Your task to perform on an android device: toggle javascript in the chrome app Image 0: 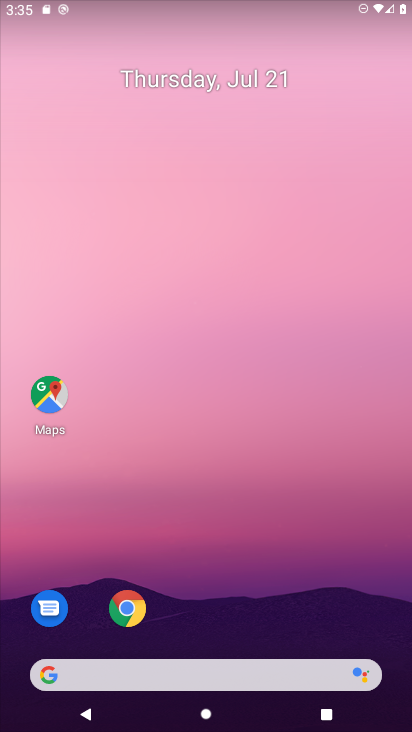
Step 0: click (131, 620)
Your task to perform on an android device: toggle javascript in the chrome app Image 1: 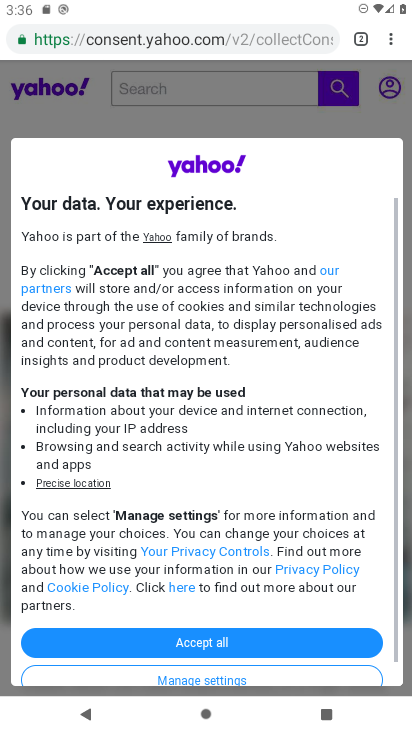
Step 1: click (384, 36)
Your task to perform on an android device: toggle javascript in the chrome app Image 2: 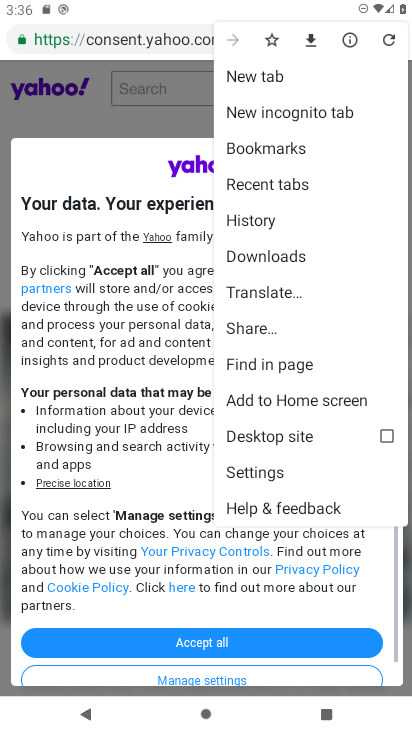
Step 2: click (284, 464)
Your task to perform on an android device: toggle javascript in the chrome app Image 3: 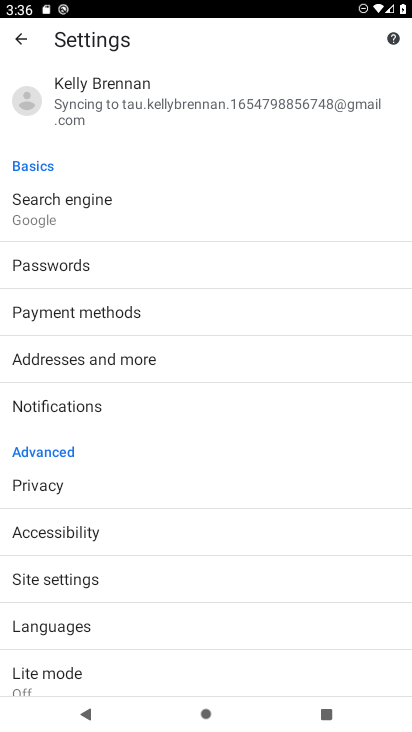
Step 3: click (85, 582)
Your task to perform on an android device: toggle javascript in the chrome app Image 4: 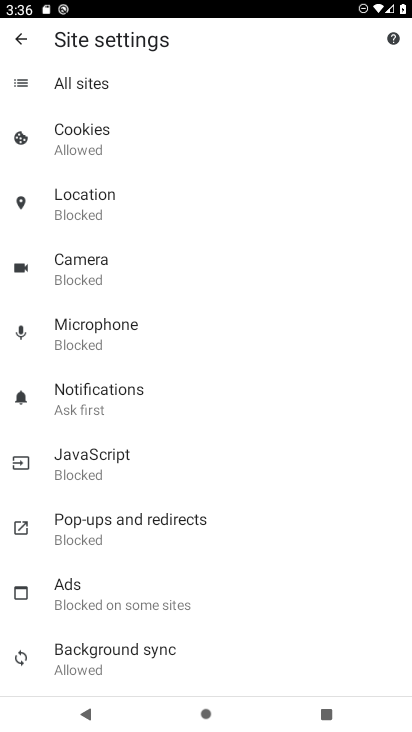
Step 4: click (132, 463)
Your task to perform on an android device: toggle javascript in the chrome app Image 5: 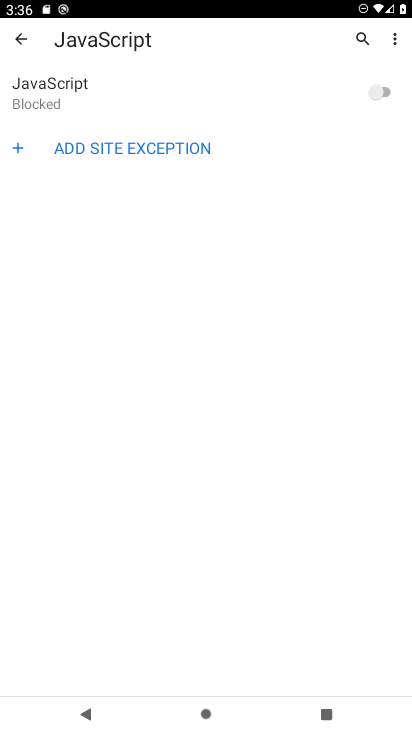
Step 5: click (385, 94)
Your task to perform on an android device: toggle javascript in the chrome app Image 6: 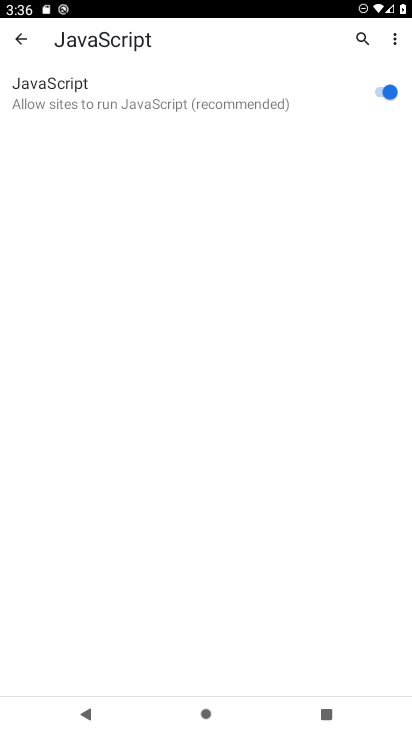
Step 6: task complete